Your task to perform on an android device: Show me recent news Image 0: 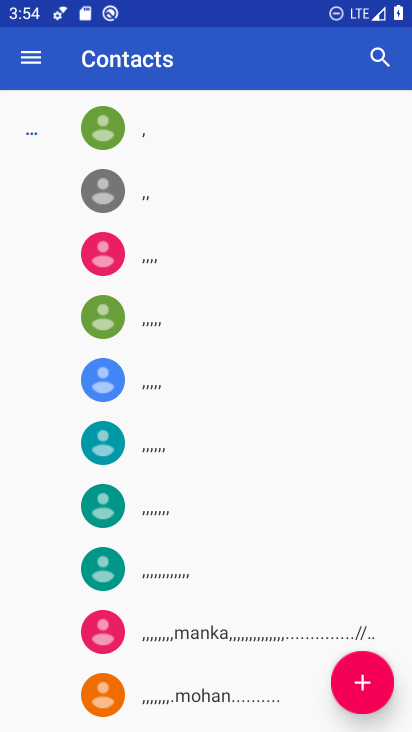
Step 0: press home button
Your task to perform on an android device: Show me recent news Image 1: 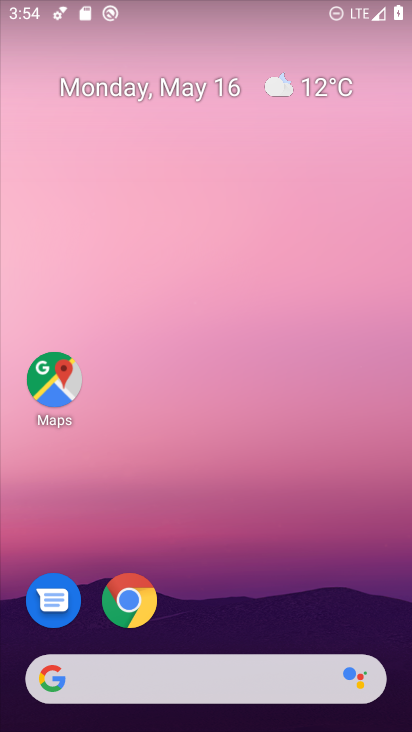
Step 1: drag from (282, 606) to (325, 100)
Your task to perform on an android device: Show me recent news Image 2: 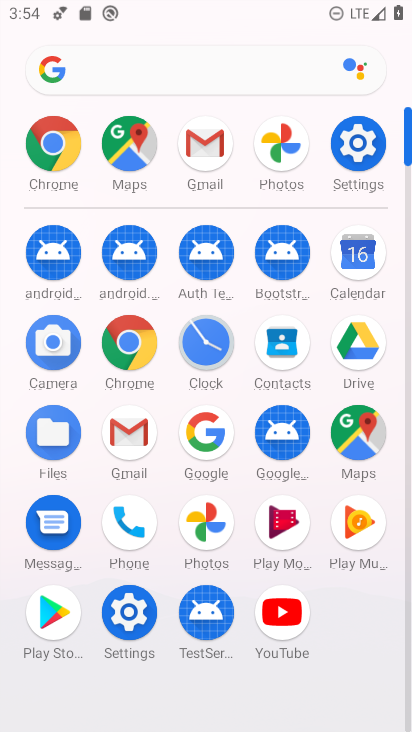
Step 2: click (131, 341)
Your task to perform on an android device: Show me recent news Image 3: 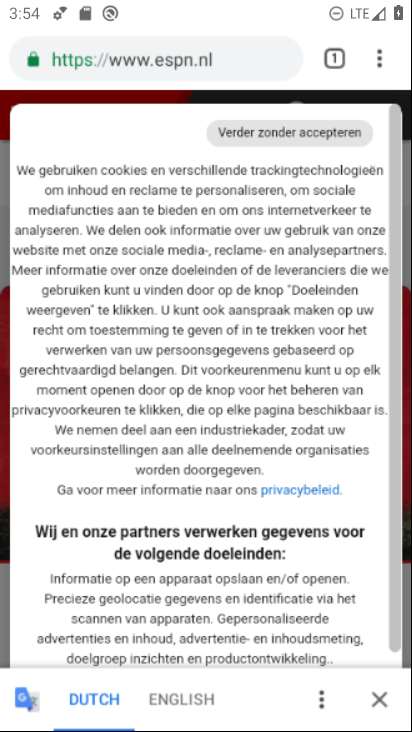
Step 3: click (202, 39)
Your task to perform on an android device: Show me recent news Image 4: 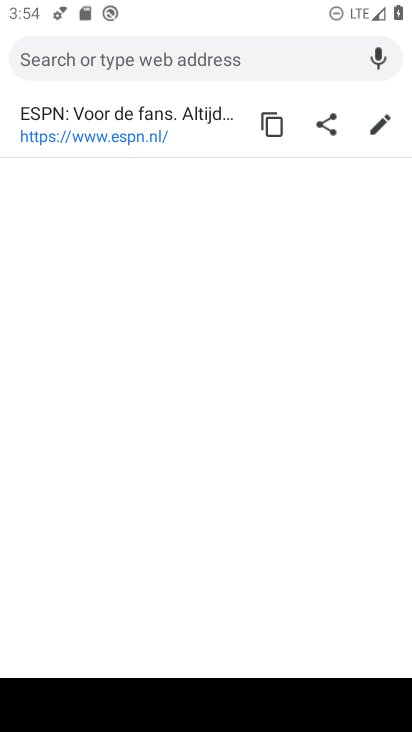
Step 4: type "news"
Your task to perform on an android device: Show me recent news Image 5: 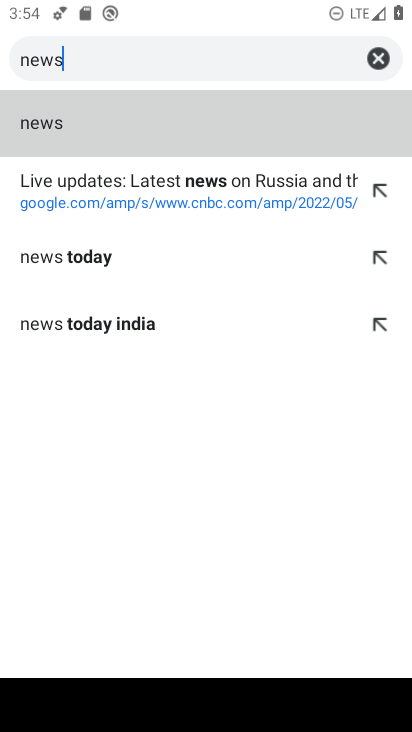
Step 5: click (35, 130)
Your task to perform on an android device: Show me recent news Image 6: 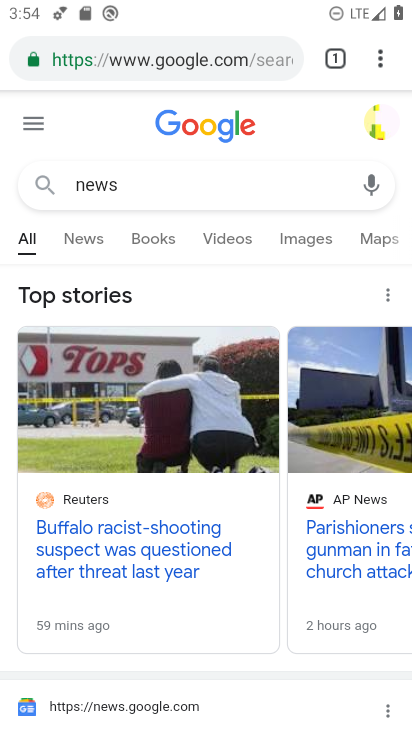
Step 6: click (90, 240)
Your task to perform on an android device: Show me recent news Image 7: 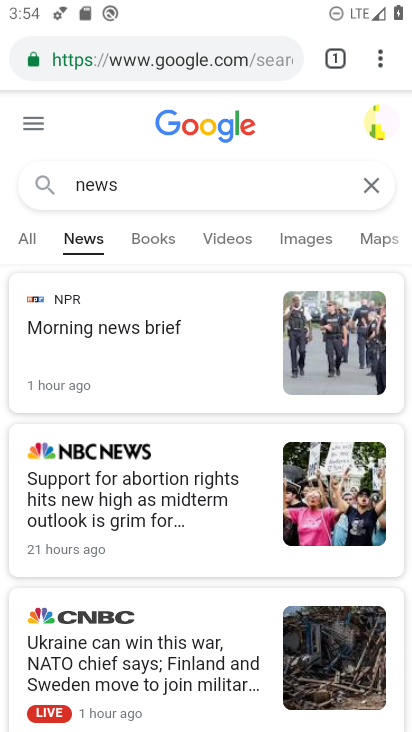
Step 7: task complete